Your task to perform on an android device: Open settings on Google Maps Image 0: 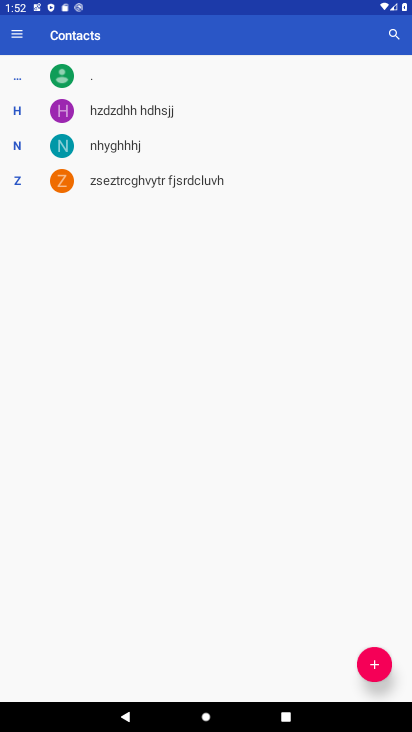
Step 0: press home button
Your task to perform on an android device: Open settings on Google Maps Image 1: 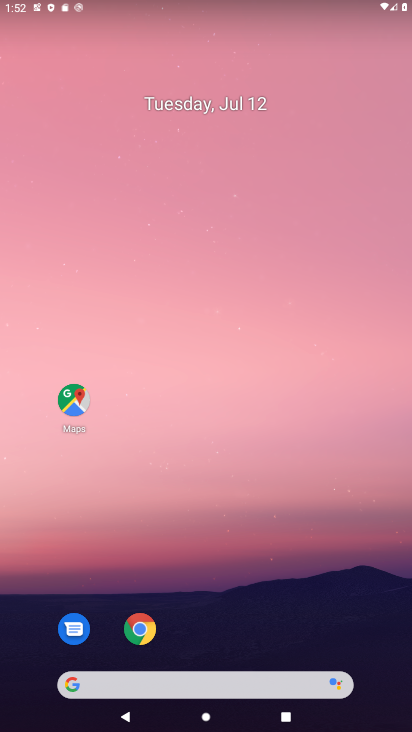
Step 1: drag from (242, 633) to (164, 164)
Your task to perform on an android device: Open settings on Google Maps Image 2: 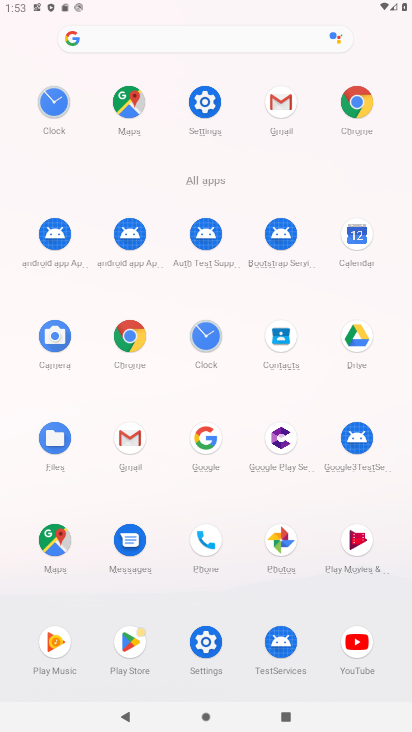
Step 2: click (123, 100)
Your task to perform on an android device: Open settings on Google Maps Image 3: 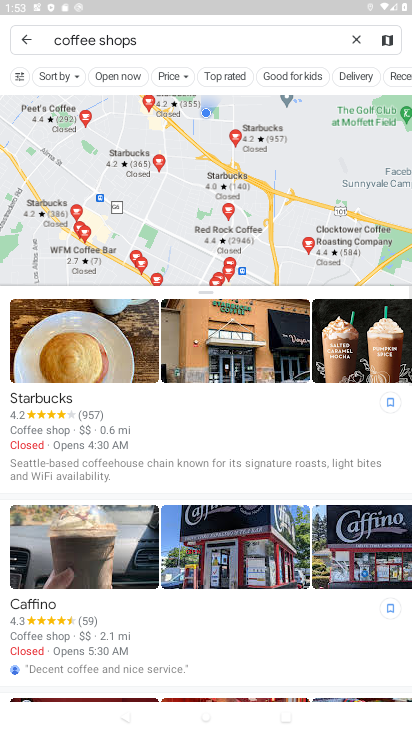
Step 3: click (26, 44)
Your task to perform on an android device: Open settings on Google Maps Image 4: 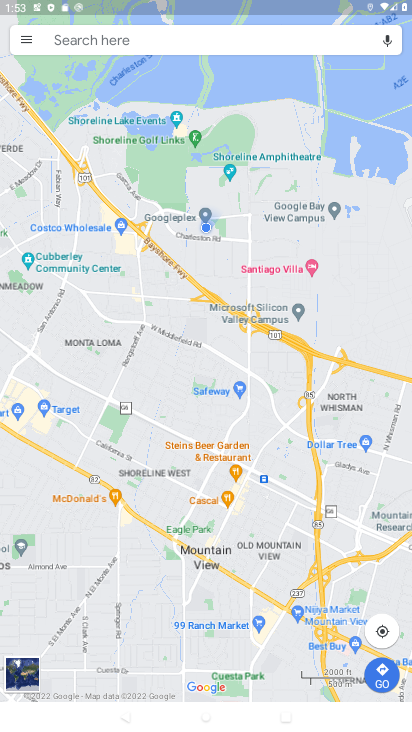
Step 4: click (26, 44)
Your task to perform on an android device: Open settings on Google Maps Image 5: 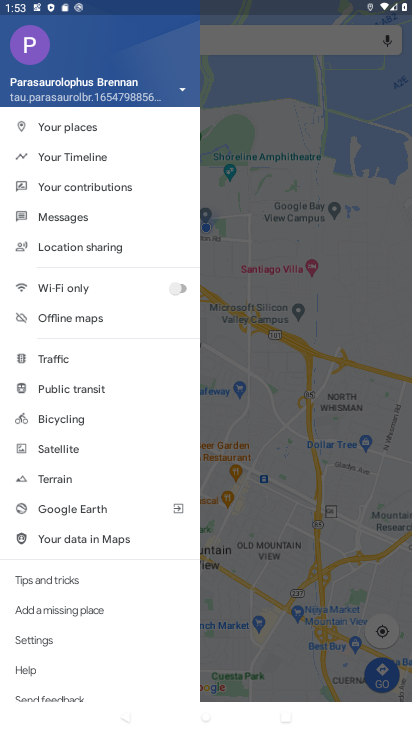
Step 5: click (48, 639)
Your task to perform on an android device: Open settings on Google Maps Image 6: 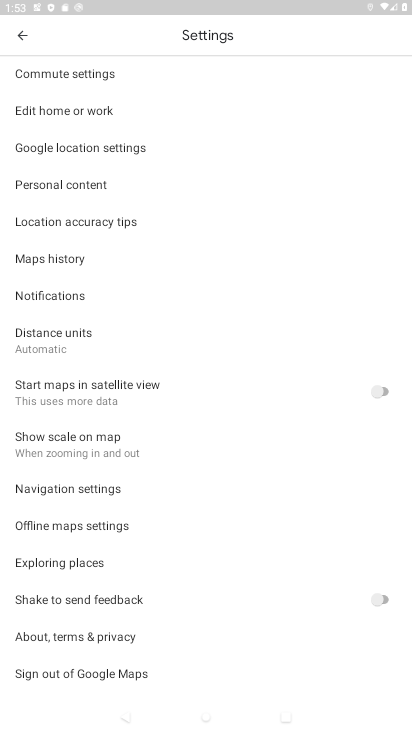
Step 6: task complete